Your task to perform on an android device: turn on location history Image 0: 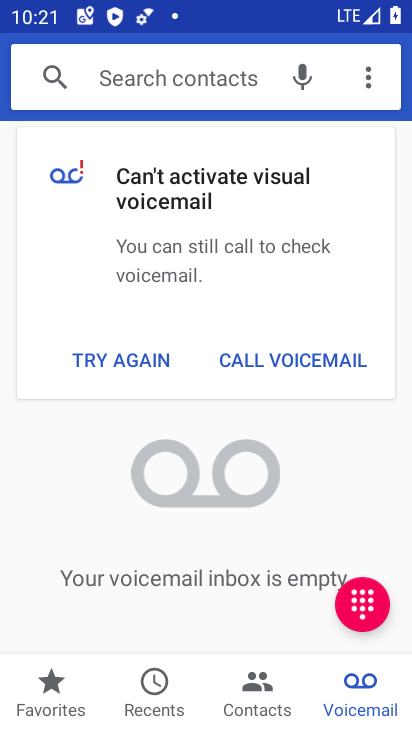
Step 0: press home button
Your task to perform on an android device: turn on location history Image 1: 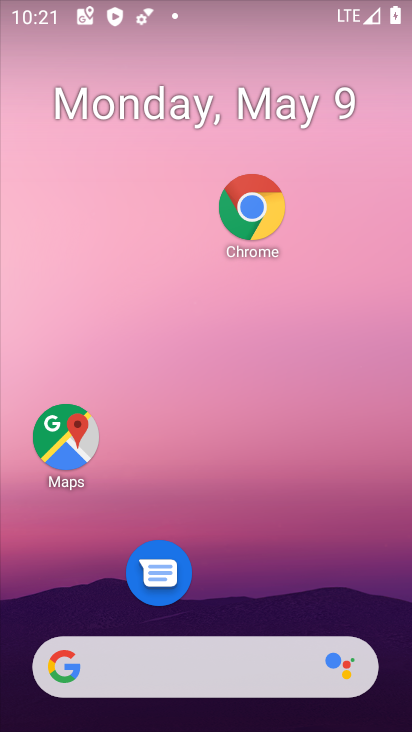
Step 1: drag from (183, 642) to (226, 7)
Your task to perform on an android device: turn on location history Image 2: 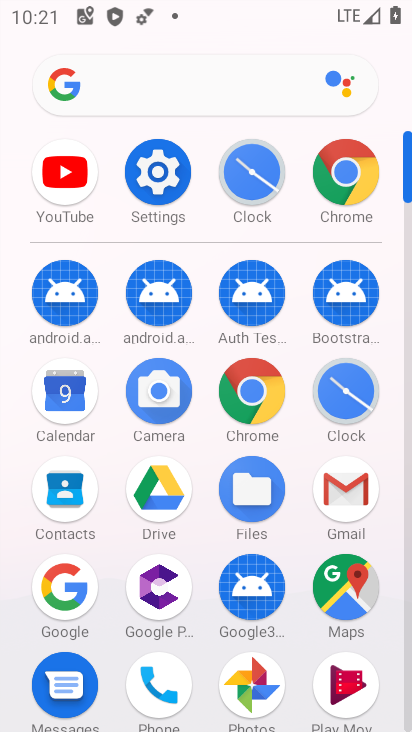
Step 2: click (170, 186)
Your task to perform on an android device: turn on location history Image 3: 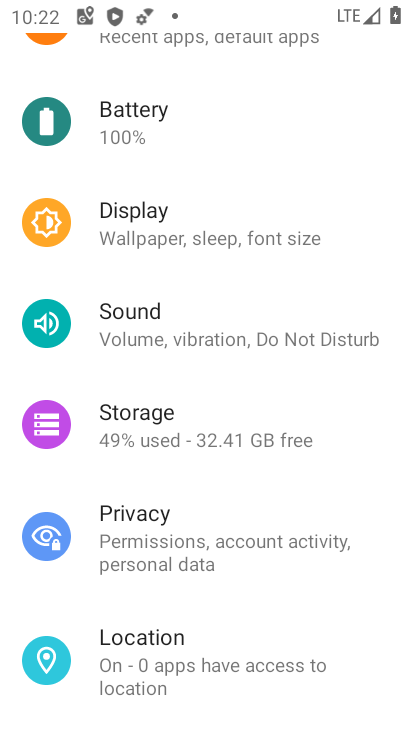
Step 3: click (118, 655)
Your task to perform on an android device: turn on location history Image 4: 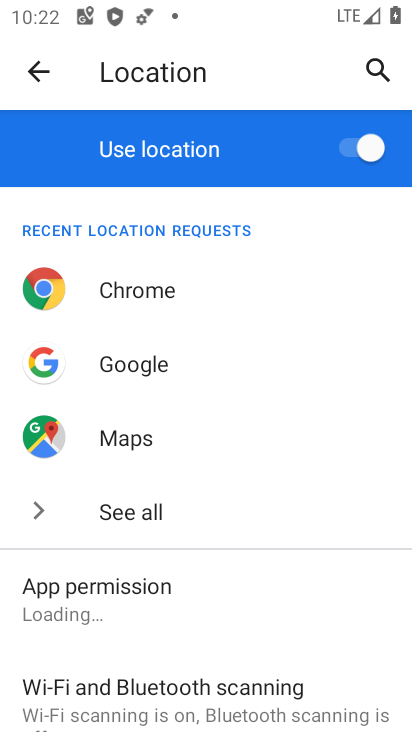
Step 4: drag from (146, 685) to (69, 331)
Your task to perform on an android device: turn on location history Image 5: 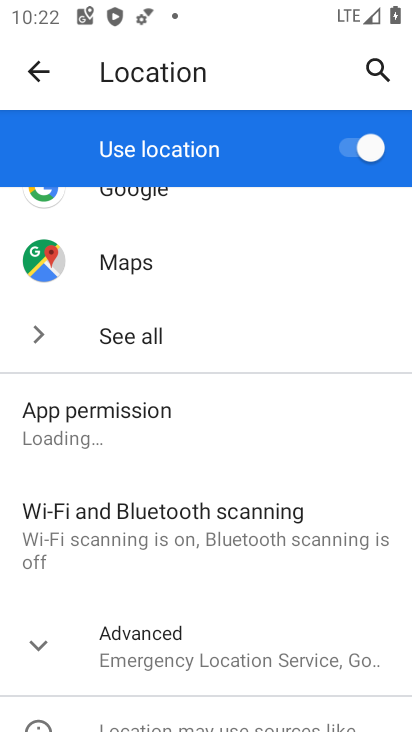
Step 5: click (145, 660)
Your task to perform on an android device: turn on location history Image 6: 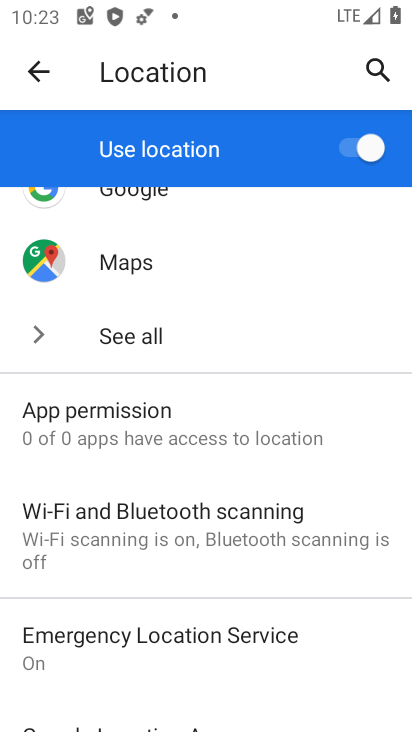
Step 6: drag from (153, 657) to (193, 182)
Your task to perform on an android device: turn on location history Image 7: 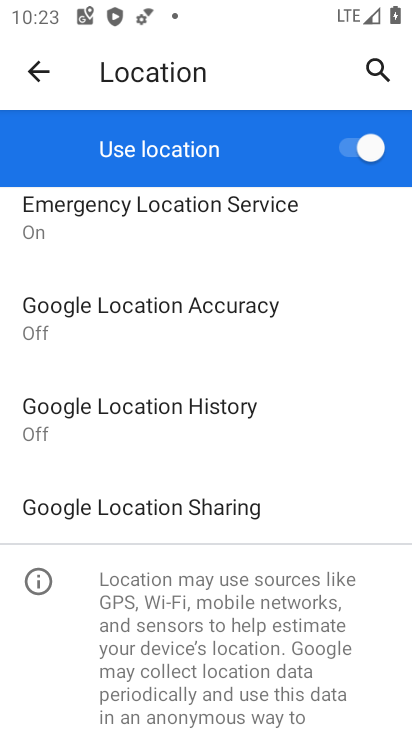
Step 7: click (220, 433)
Your task to perform on an android device: turn on location history Image 8: 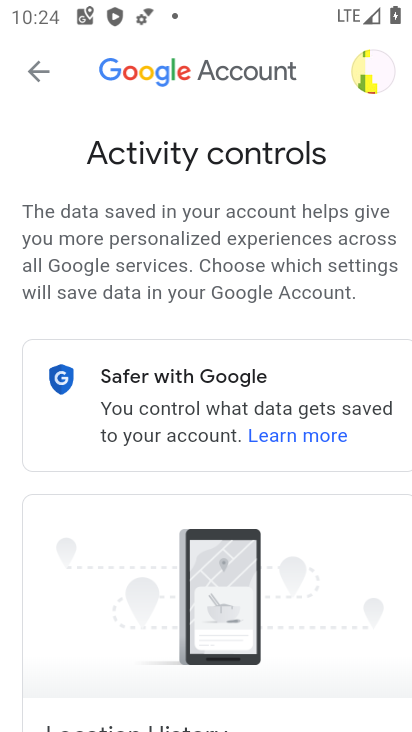
Step 8: drag from (237, 560) to (243, 274)
Your task to perform on an android device: turn on location history Image 9: 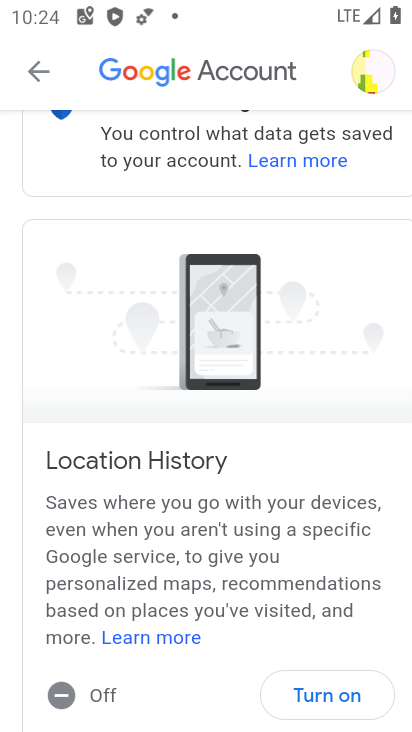
Step 9: drag from (259, 573) to (254, 352)
Your task to perform on an android device: turn on location history Image 10: 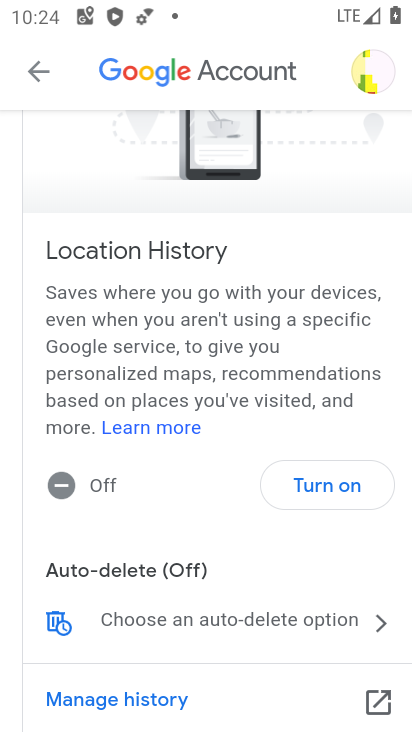
Step 10: click (312, 507)
Your task to perform on an android device: turn on location history Image 11: 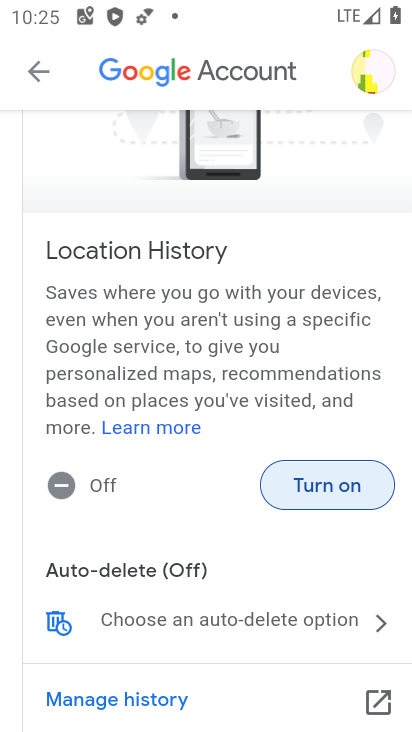
Step 11: click (314, 498)
Your task to perform on an android device: turn on location history Image 12: 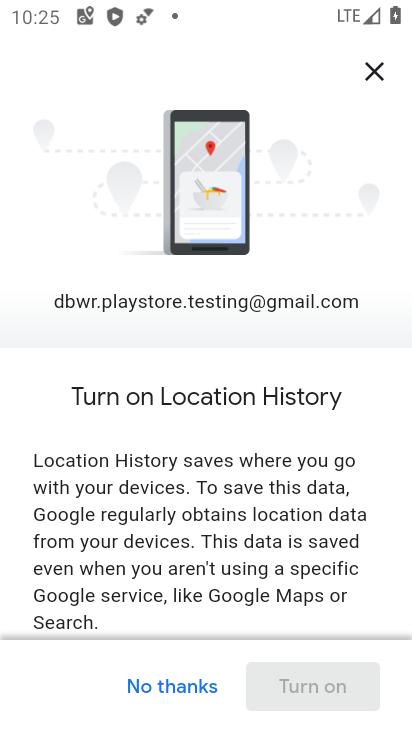
Step 12: drag from (297, 505) to (343, 22)
Your task to perform on an android device: turn on location history Image 13: 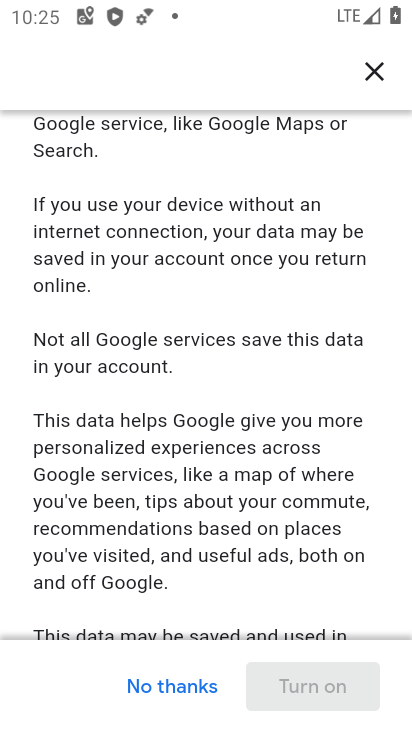
Step 13: drag from (263, 407) to (228, 15)
Your task to perform on an android device: turn on location history Image 14: 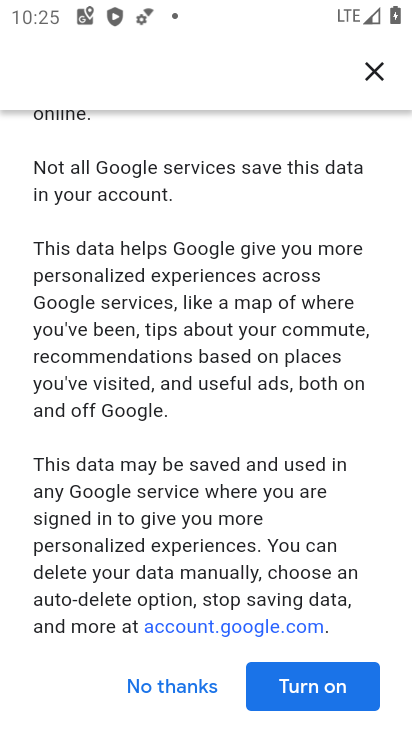
Step 14: drag from (250, 376) to (355, 7)
Your task to perform on an android device: turn on location history Image 15: 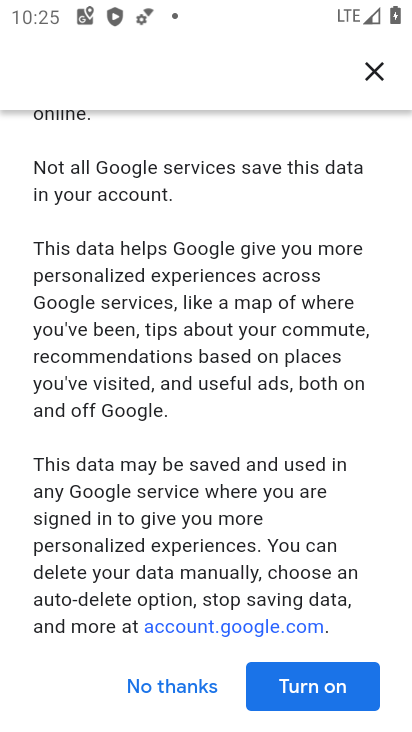
Step 15: click (332, 694)
Your task to perform on an android device: turn on location history Image 16: 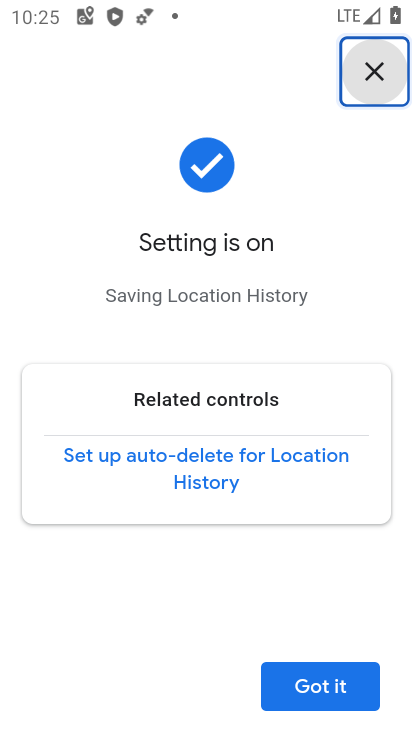
Step 16: click (358, 669)
Your task to perform on an android device: turn on location history Image 17: 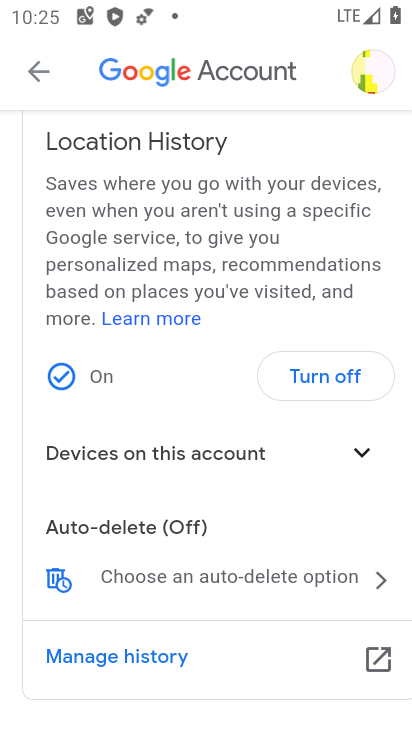
Step 17: task complete